Your task to perform on an android device: Find coffee shops on Maps Image 0: 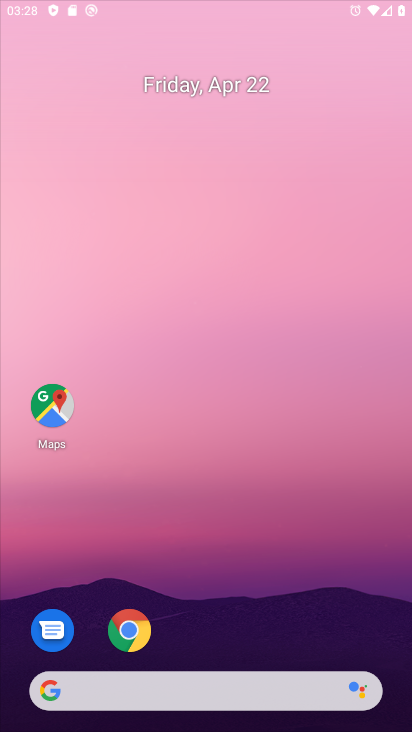
Step 0: click (256, 139)
Your task to perform on an android device: Find coffee shops on Maps Image 1: 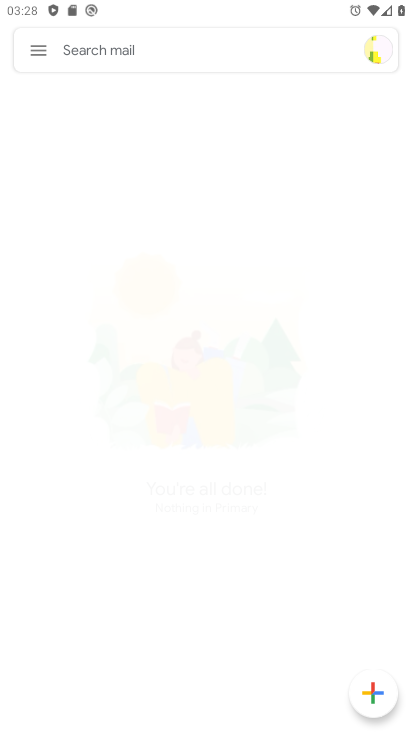
Step 1: press home button
Your task to perform on an android device: Find coffee shops on Maps Image 2: 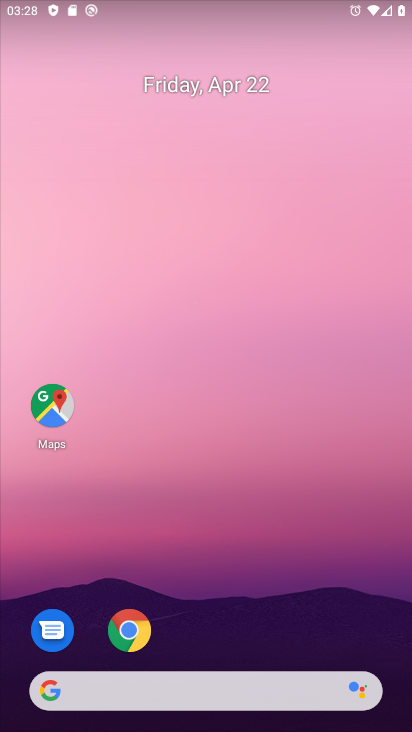
Step 2: click (54, 406)
Your task to perform on an android device: Find coffee shops on Maps Image 3: 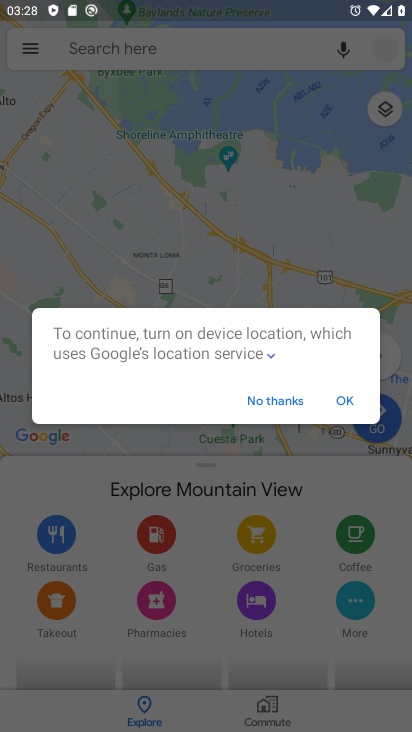
Step 3: click (93, 47)
Your task to perform on an android device: Find coffee shops on Maps Image 4: 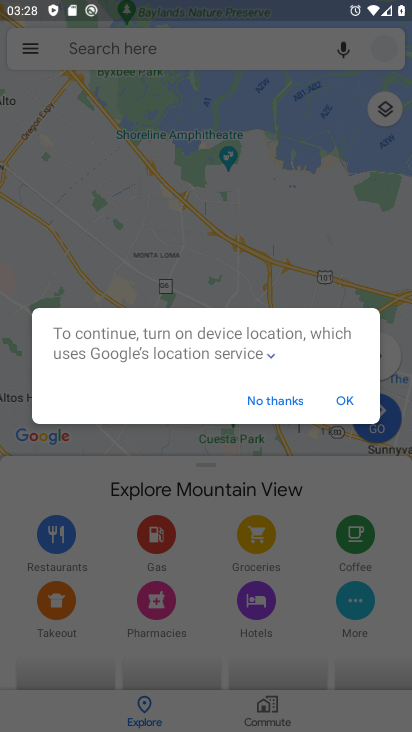
Step 4: click (274, 396)
Your task to perform on an android device: Find coffee shops on Maps Image 5: 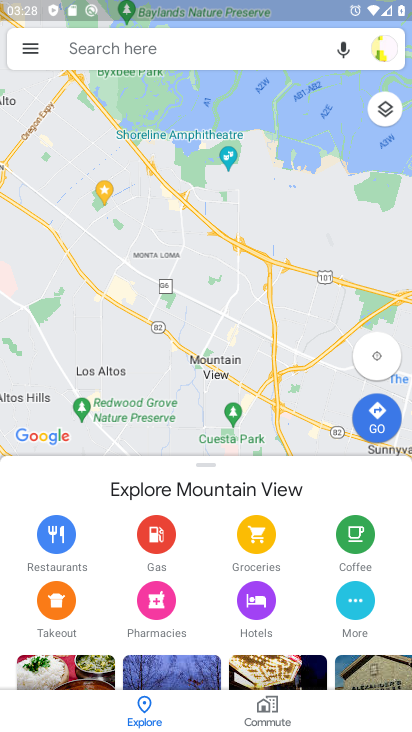
Step 5: click (188, 55)
Your task to perform on an android device: Find coffee shops on Maps Image 6: 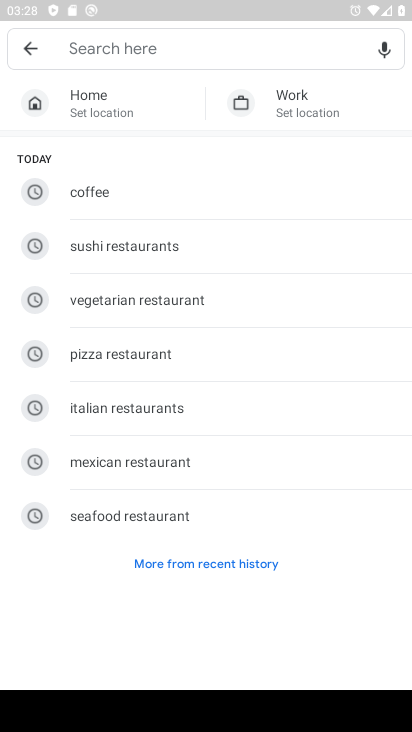
Step 6: type "coffee shops"
Your task to perform on an android device: Find coffee shops on Maps Image 7: 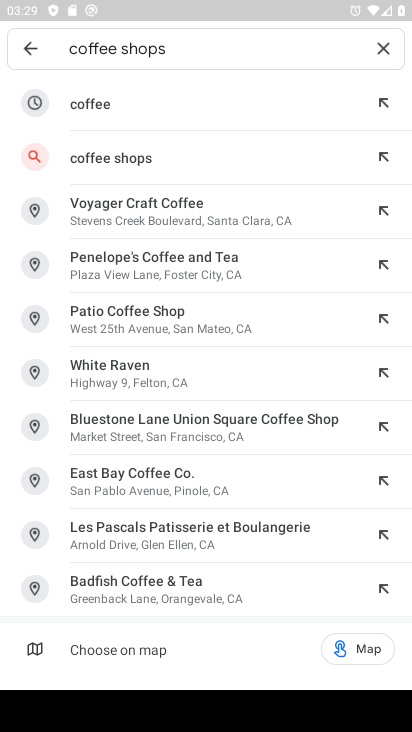
Step 7: click (160, 157)
Your task to perform on an android device: Find coffee shops on Maps Image 8: 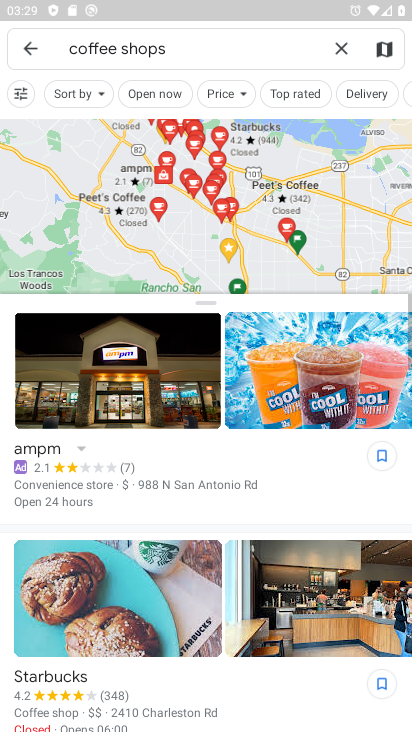
Step 8: task complete